Your task to perform on an android device: set the stopwatch Image 0: 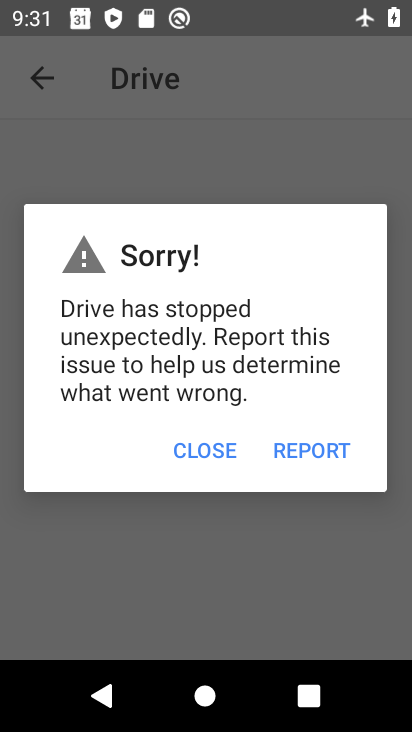
Step 0: click (265, 565)
Your task to perform on an android device: set the stopwatch Image 1: 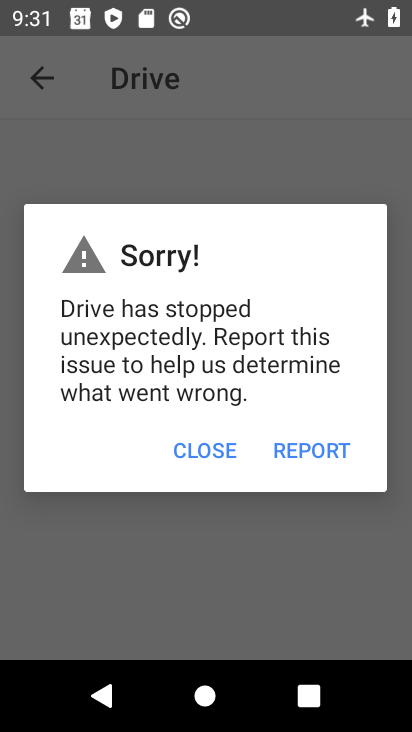
Step 1: press home button
Your task to perform on an android device: set the stopwatch Image 2: 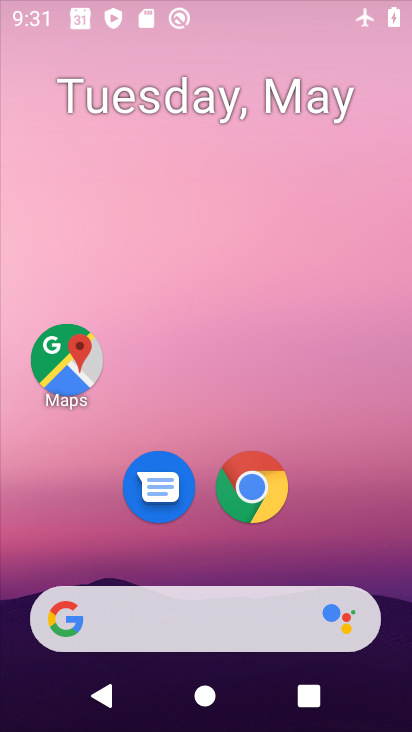
Step 2: drag from (195, 556) to (189, 112)
Your task to perform on an android device: set the stopwatch Image 3: 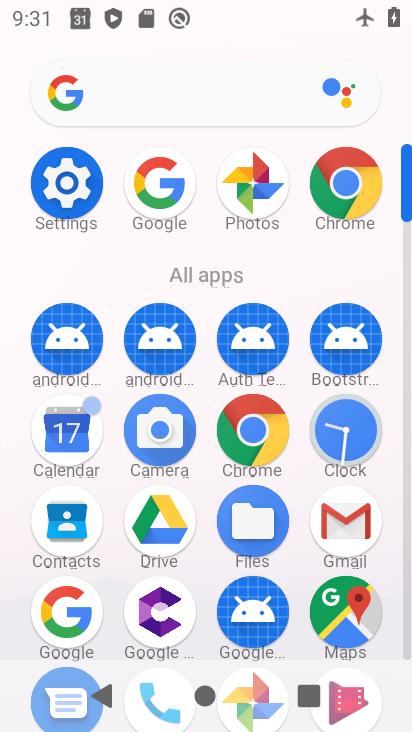
Step 3: click (331, 433)
Your task to perform on an android device: set the stopwatch Image 4: 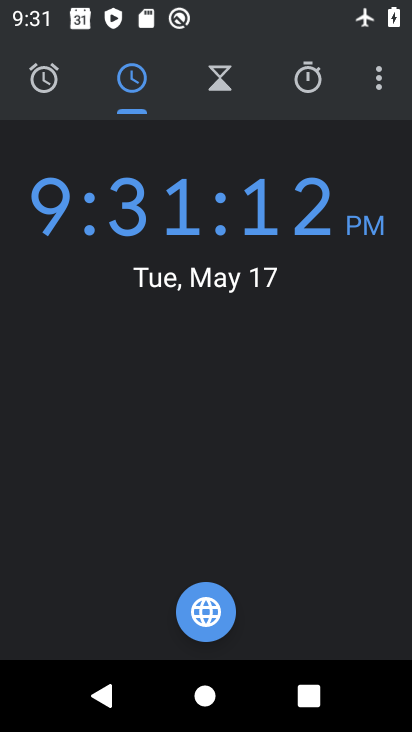
Step 4: click (315, 82)
Your task to perform on an android device: set the stopwatch Image 5: 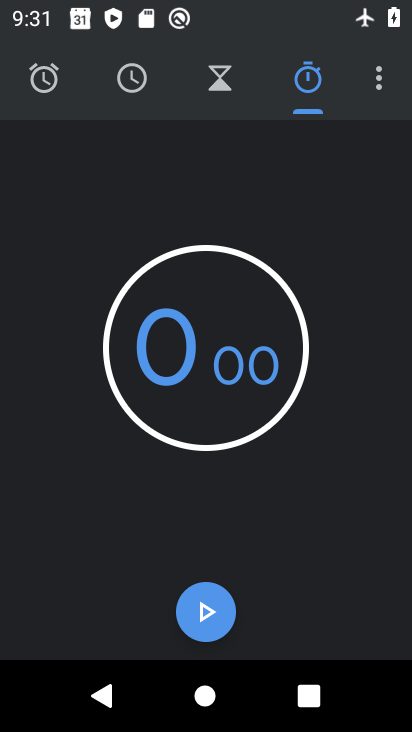
Step 5: click (189, 611)
Your task to perform on an android device: set the stopwatch Image 6: 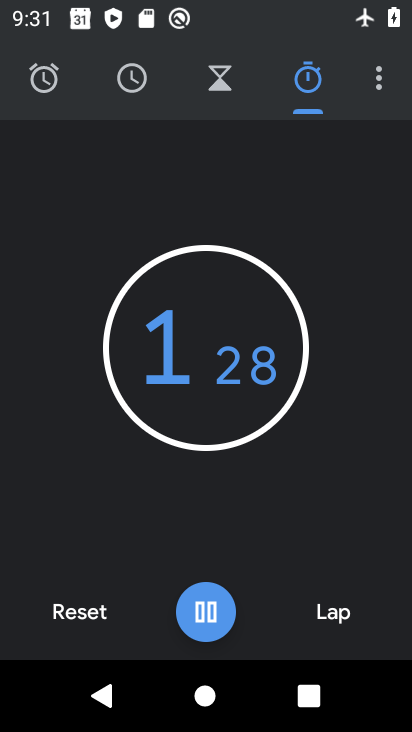
Step 6: task complete